Your task to perform on an android device: Open settings Image 0: 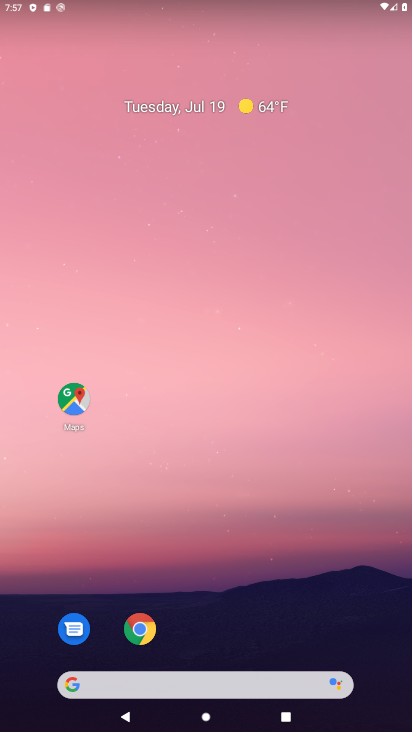
Step 0: drag from (193, 611) to (272, 94)
Your task to perform on an android device: Open settings Image 1: 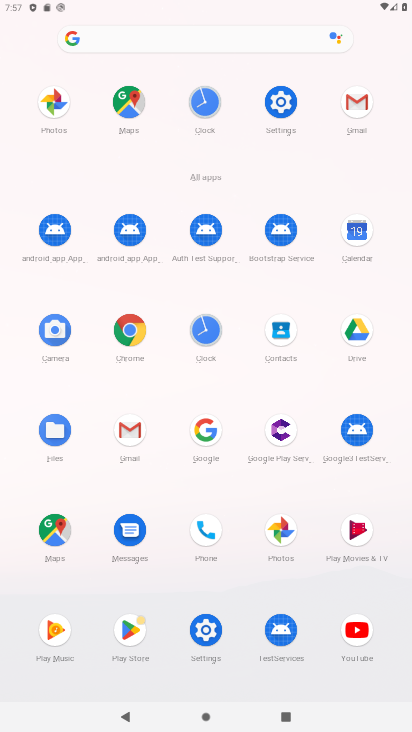
Step 1: click (271, 97)
Your task to perform on an android device: Open settings Image 2: 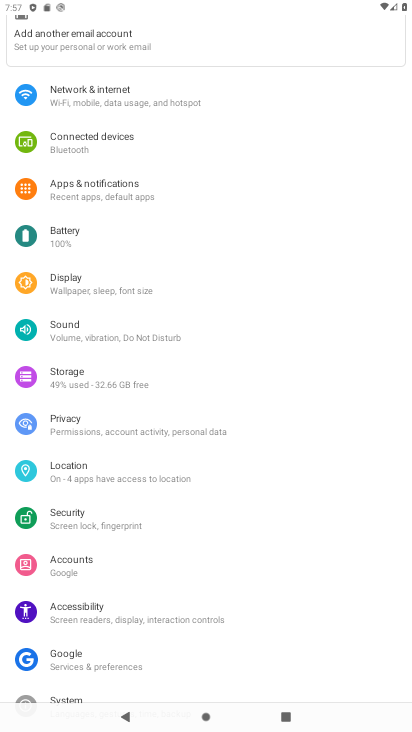
Step 2: task complete